Your task to perform on an android device: Go to wifi settings Image 0: 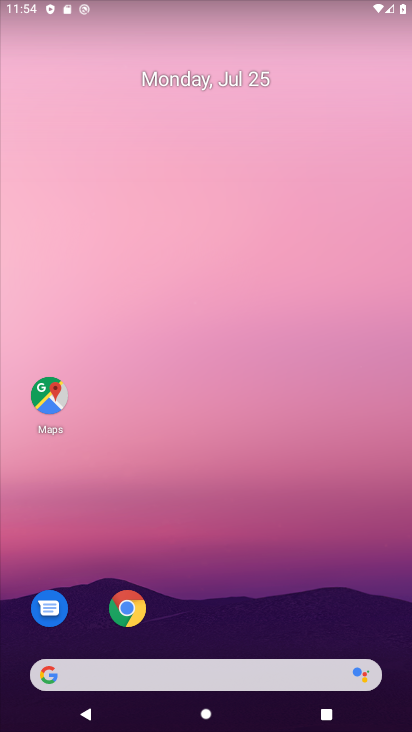
Step 0: drag from (250, 624) to (350, 131)
Your task to perform on an android device: Go to wifi settings Image 1: 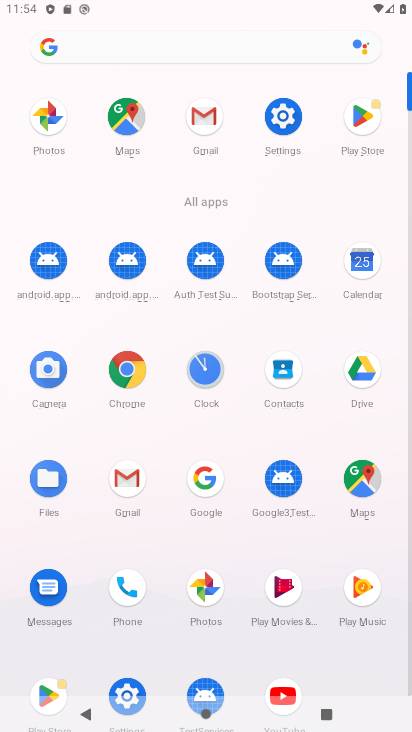
Step 1: click (300, 142)
Your task to perform on an android device: Go to wifi settings Image 2: 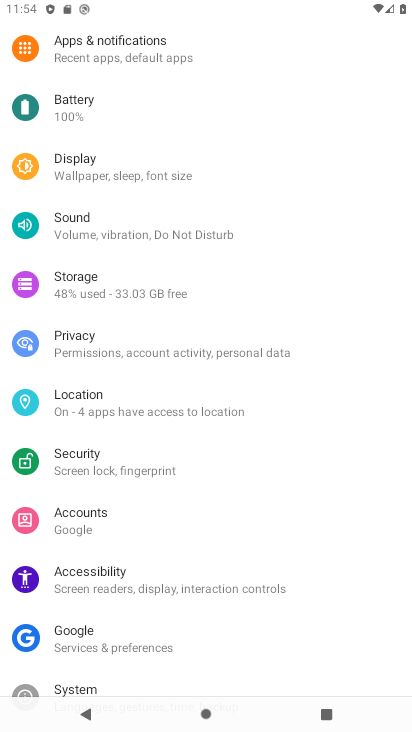
Step 2: click (103, 60)
Your task to perform on an android device: Go to wifi settings Image 3: 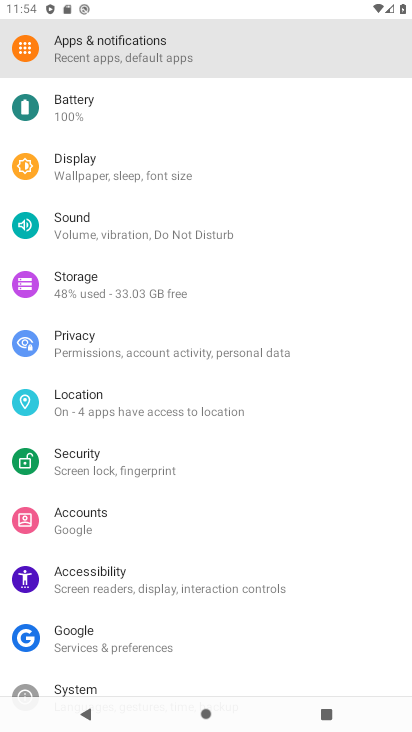
Step 3: task complete